Your task to perform on an android device: When is my next meeting? Image 0: 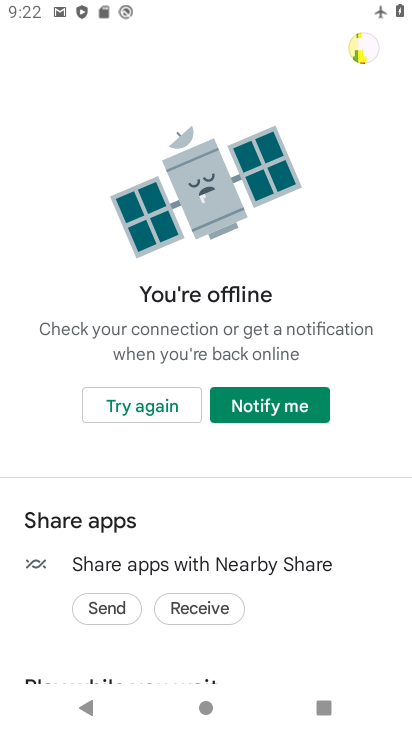
Step 0: press home button
Your task to perform on an android device: When is my next meeting? Image 1: 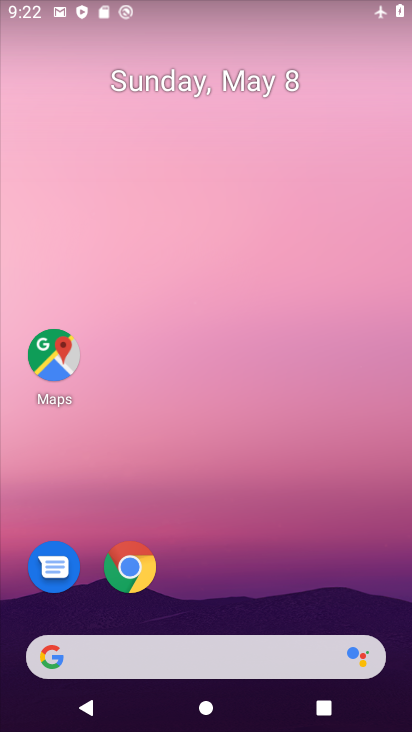
Step 1: drag from (207, 726) to (192, 203)
Your task to perform on an android device: When is my next meeting? Image 2: 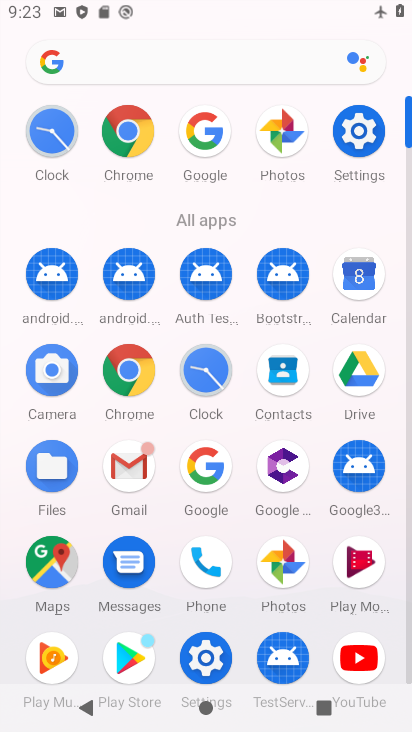
Step 2: click (353, 282)
Your task to perform on an android device: When is my next meeting? Image 3: 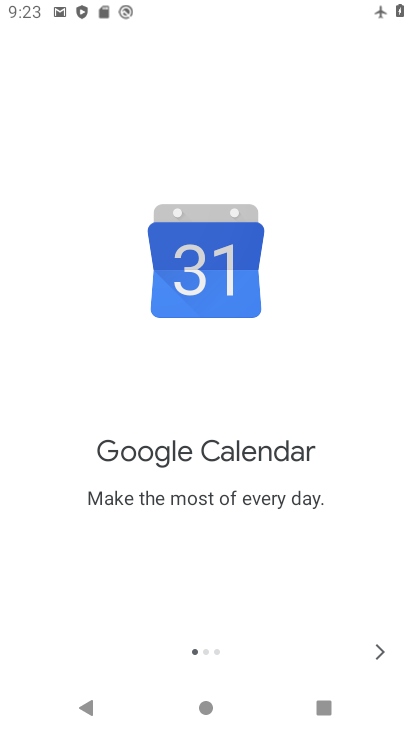
Step 3: click (378, 644)
Your task to perform on an android device: When is my next meeting? Image 4: 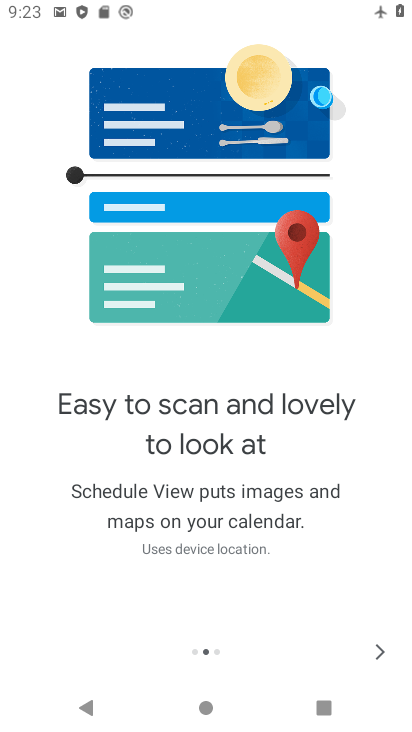
Step 4: click (378, 644)
Your task to perform on an android device: When is my next meeting? Image 5: 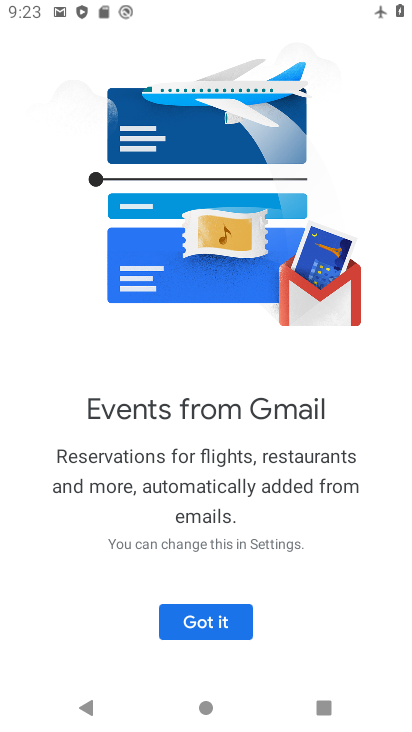
Step 5: click (378, 644)
Your task to perform on an android device: When is my next meeting? Image 6: 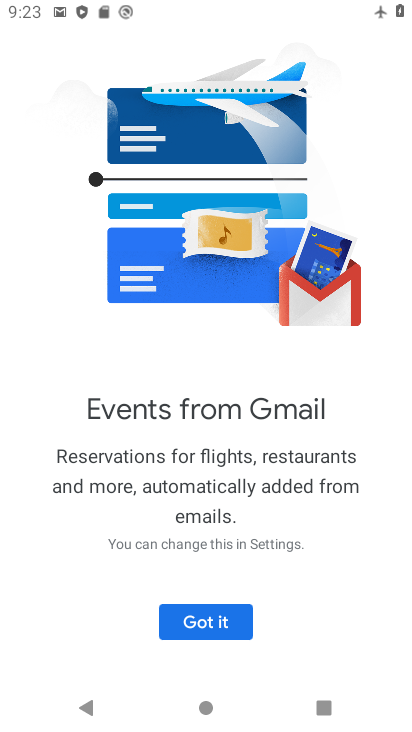
Step 6: click (201, 619)
Your task to perform on an android device: When is my next meeting? Image 7: 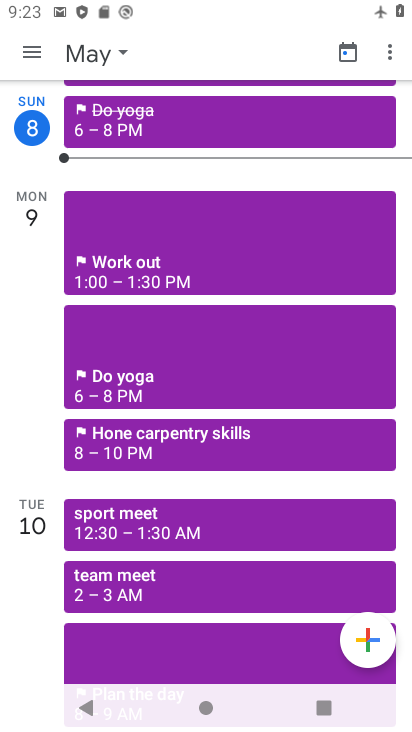
Step 7: click (85, 49)
Your task to perform on an android device: When is my next meeting? Image 8: 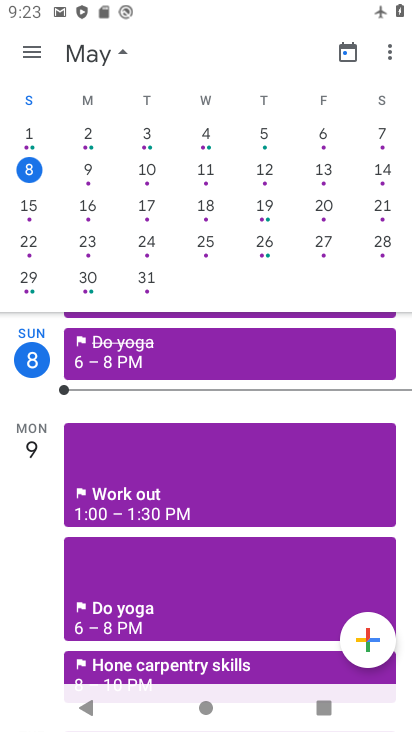
Step 8: click (84, 172)
Your task to perform on an android device: When is my next meeting? Image 9: 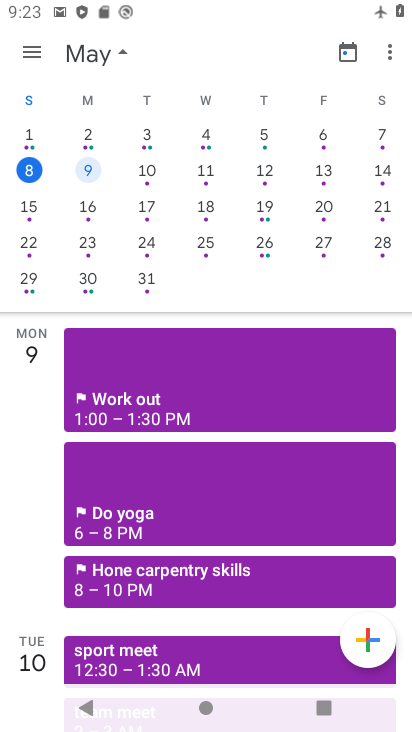
Step 9: click (117, 52)
Your task to perform on an android device: When is my next meeting? Image 10: 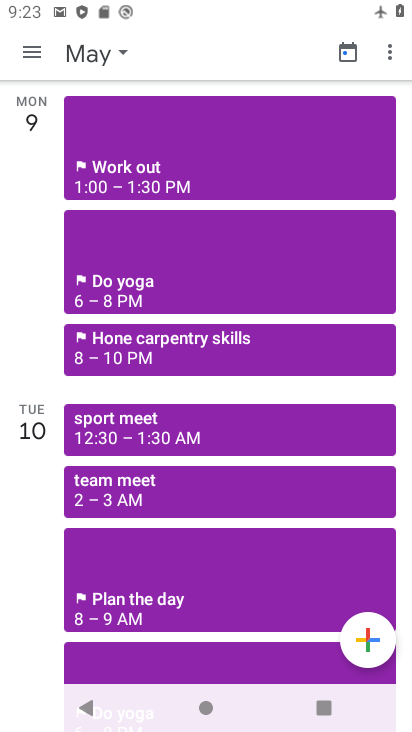
Step 10: task complete